Your task to perform on an android device: change notification settings in the gmail app Image 0: 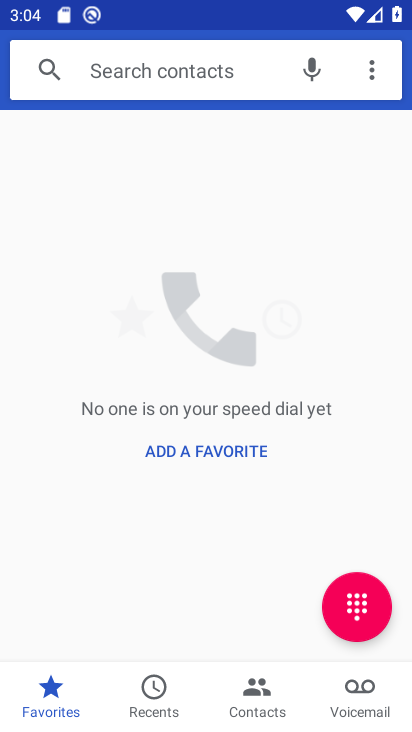
Step 0: press home button
Your task to perform on an android device: change notification settings in the gmail app Image 1: 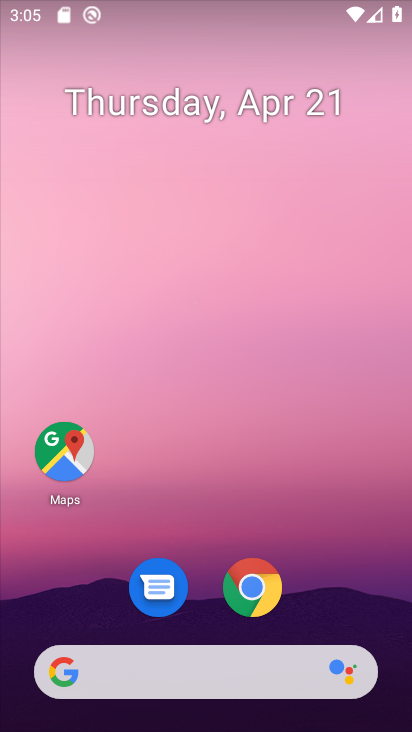
Step 1: drag from (339, 607) to (76, 108)
Your task to perform on an android device: change notification settings in the gmail app Image 2: 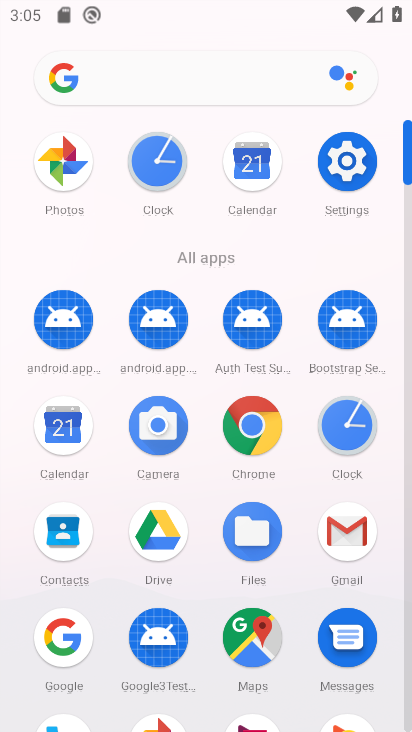
Step 2: click (354, 525)
Your task to perform on an android device: change notification settings in the gmail app Image 3: 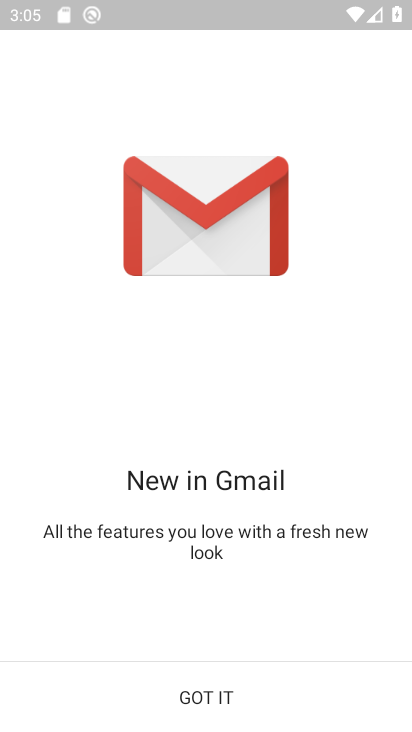
Step 3: click (204, 696)
Your task to perform on an android device: change notification settings in the gmail app Image 4: 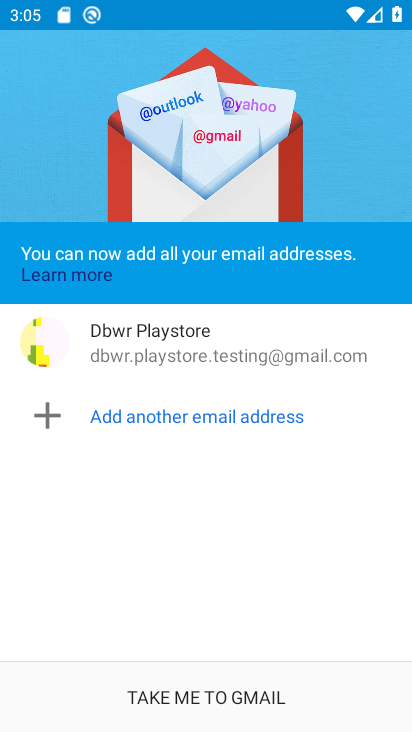
Step 4: click (205, 687)
Your task to perform on an android device: change notification settings in the gmail app Image 5: 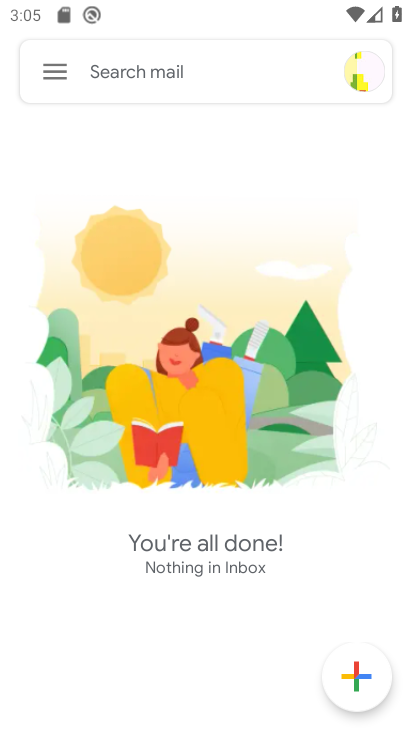
Step 5: click (60, 73)
Your task to perform on an android device: change notification settings in the gmail app Image 6: 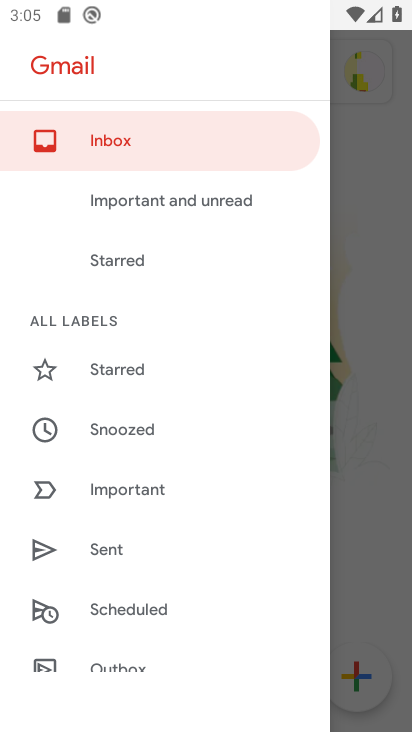
Step 6: drag from (228, 648) to (170, 60)
Your task to perform on an android device: change notification settings in the gmail app Image 7: 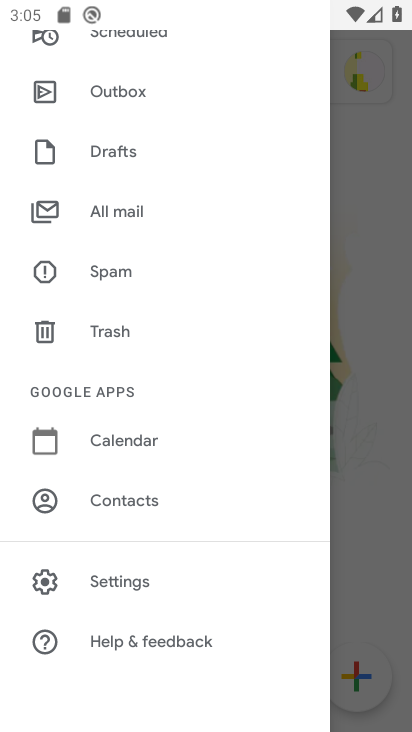
Step 7: click (90, 586)
Your task to perform on an android device: change notification settings in the gmail app Image 8: 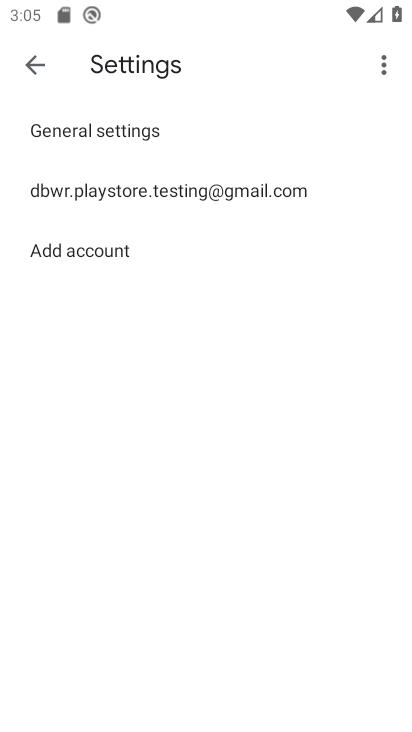
Step 8: click (137, 180)
Your task to perform on an android device: change notification settings in the gmail app Image 9: 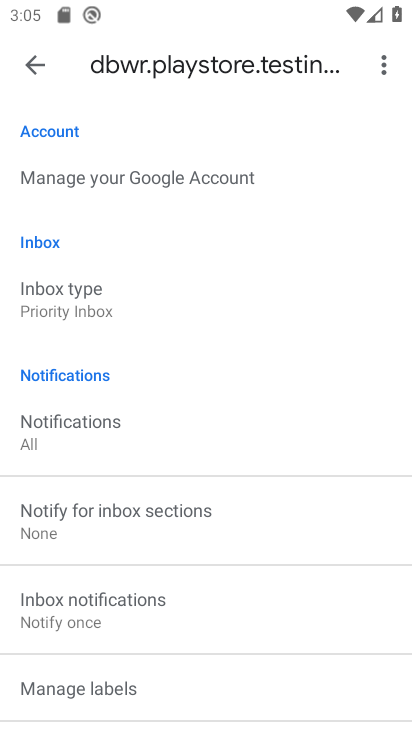
Step 9: drag from (152, 637) to (139, 251)
Your task to perform on an android device: change notification settings in the gmail app Image 10: 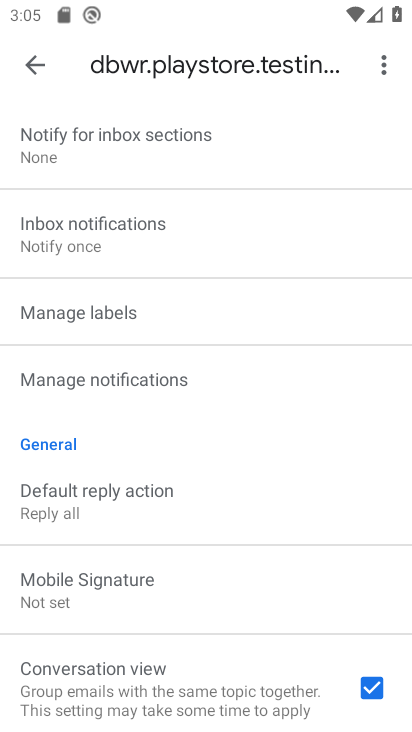
Step 10: click (100, 377)
Your task to perform on an android device: change notification settings in the gmail app Image 11: 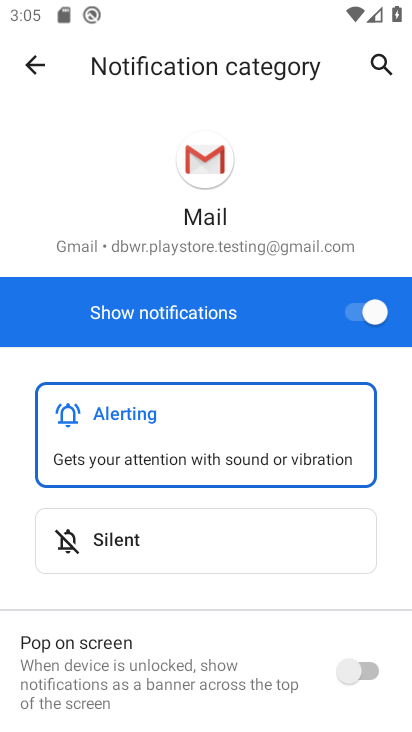
Step 11: click (374, 316)
Your task to perform on an android device: change notification settings in the gmail app Image 12: 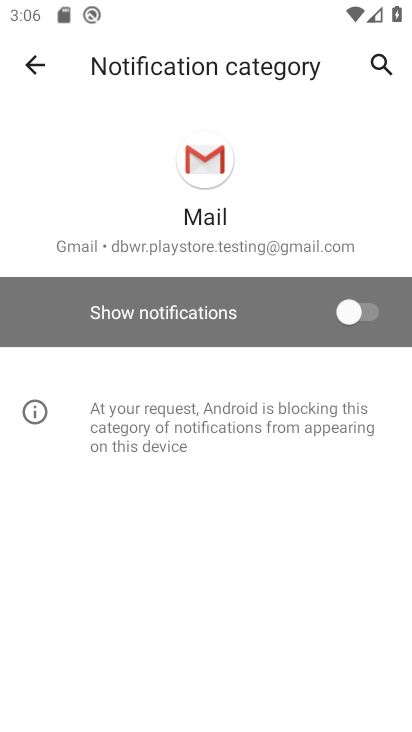
Step 12: task complete